Your task to perform on an android device: Add macbook air to the cart on target.com Image 0: 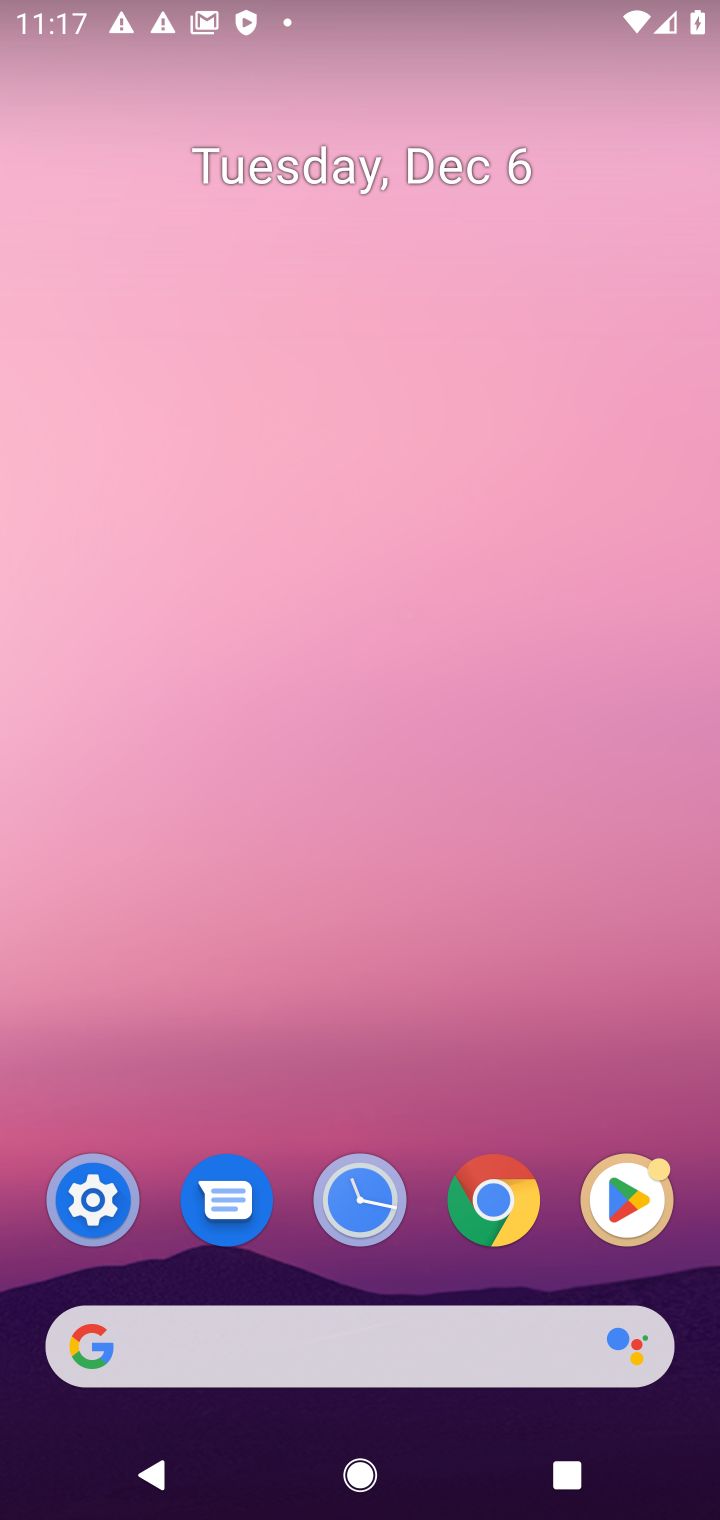
Step 0: click (291, 1377)
Your task to perform on an android device: Add macbook air to the cart on target.com Image 1: 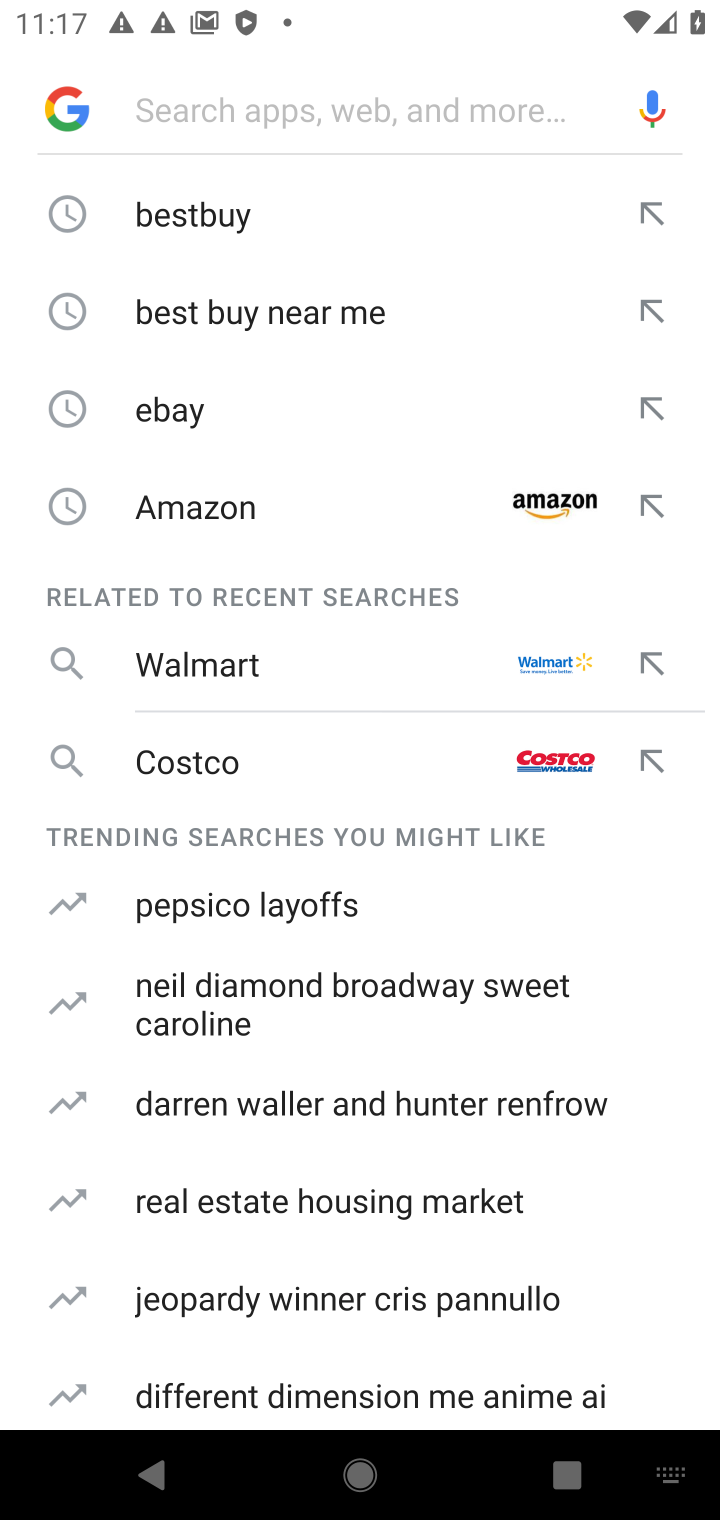
Step 1: type "target"
Your task to perform on an android device: Add macbook air to the cart on target.com Image 2: 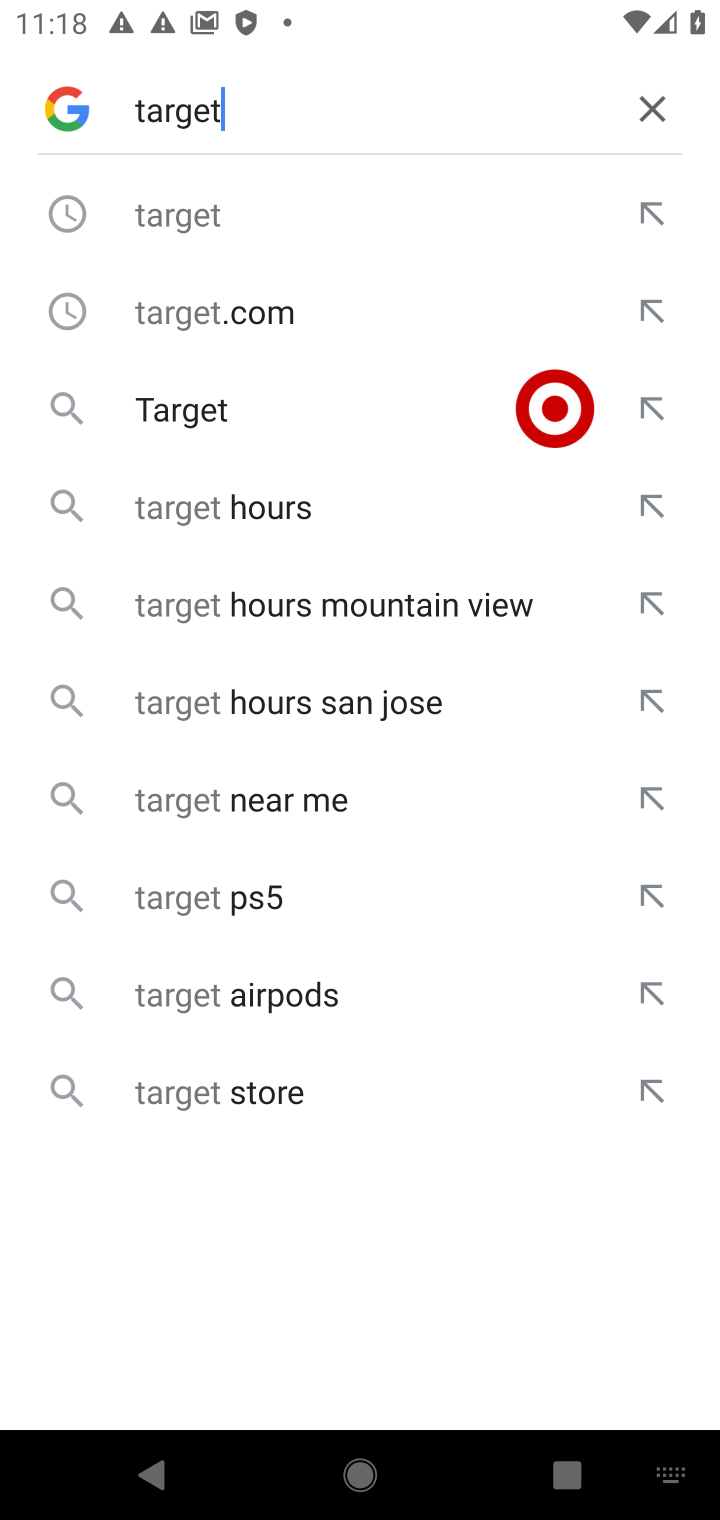
Step 2: click (209, 317)
Your task to perform on an android device: Add macbook air to the cart on target.com Image 3: 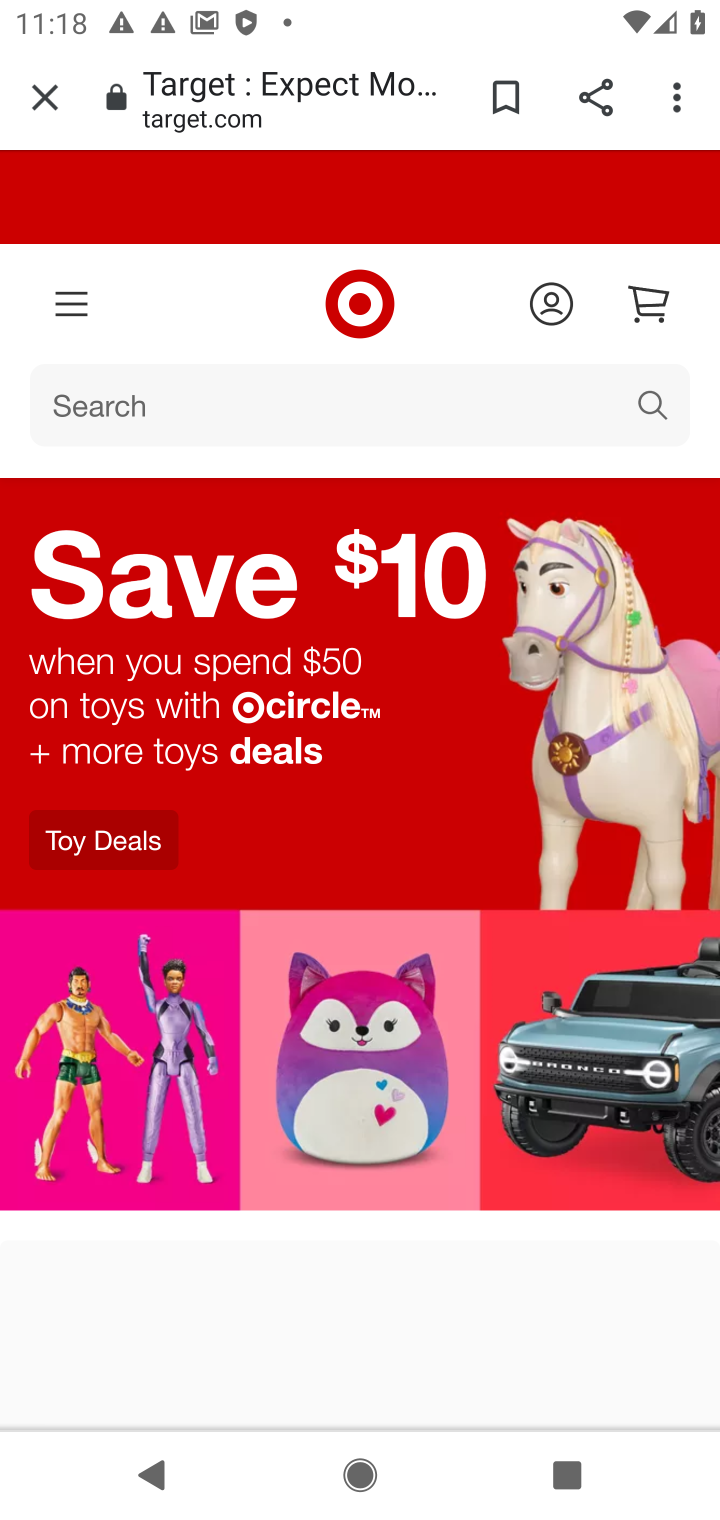
Step 3: click (153, 399)
Your task to perform on an android device: Add macbook air to the cart on target.com Image 4: 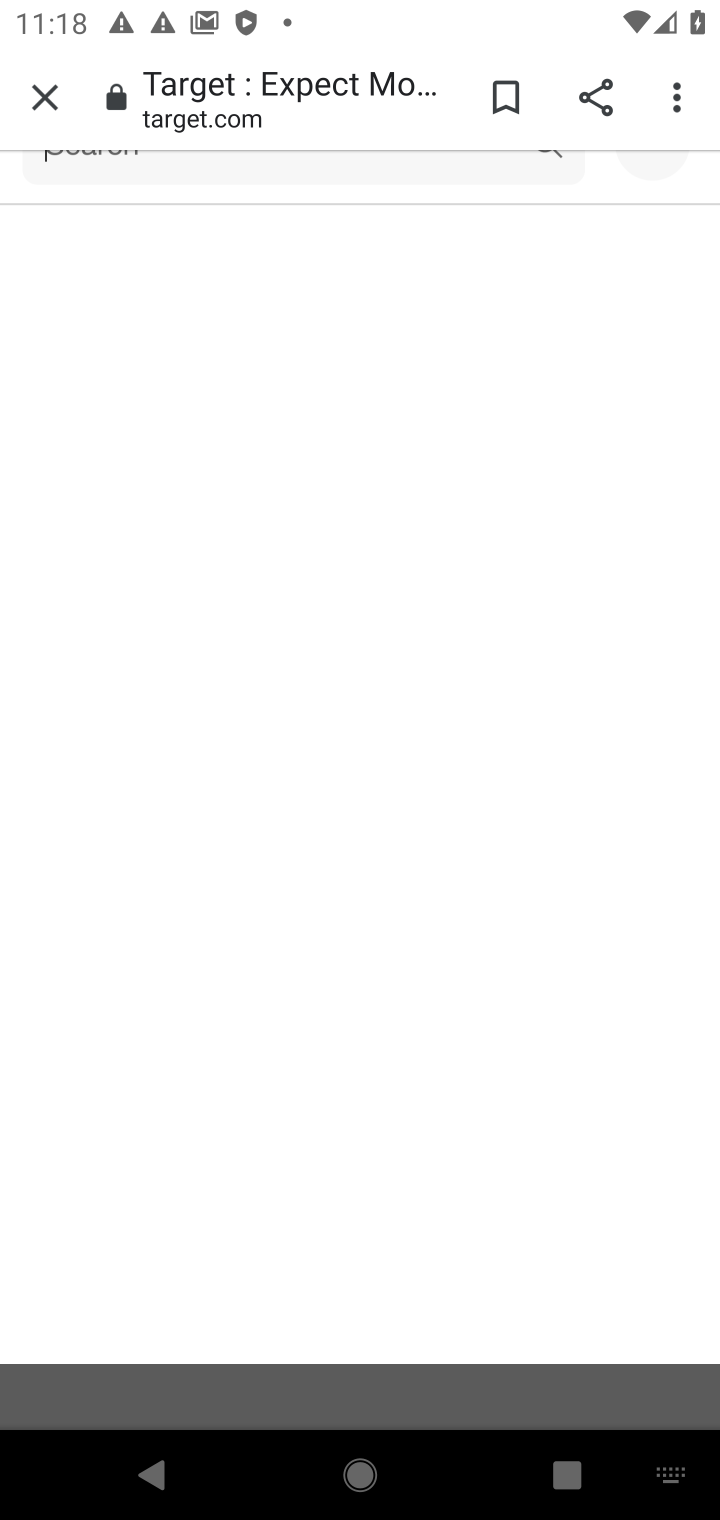
Step 4: type "macbook"
Your task to perform on an android device: Add macbook air to the cart on target.com Image 5: 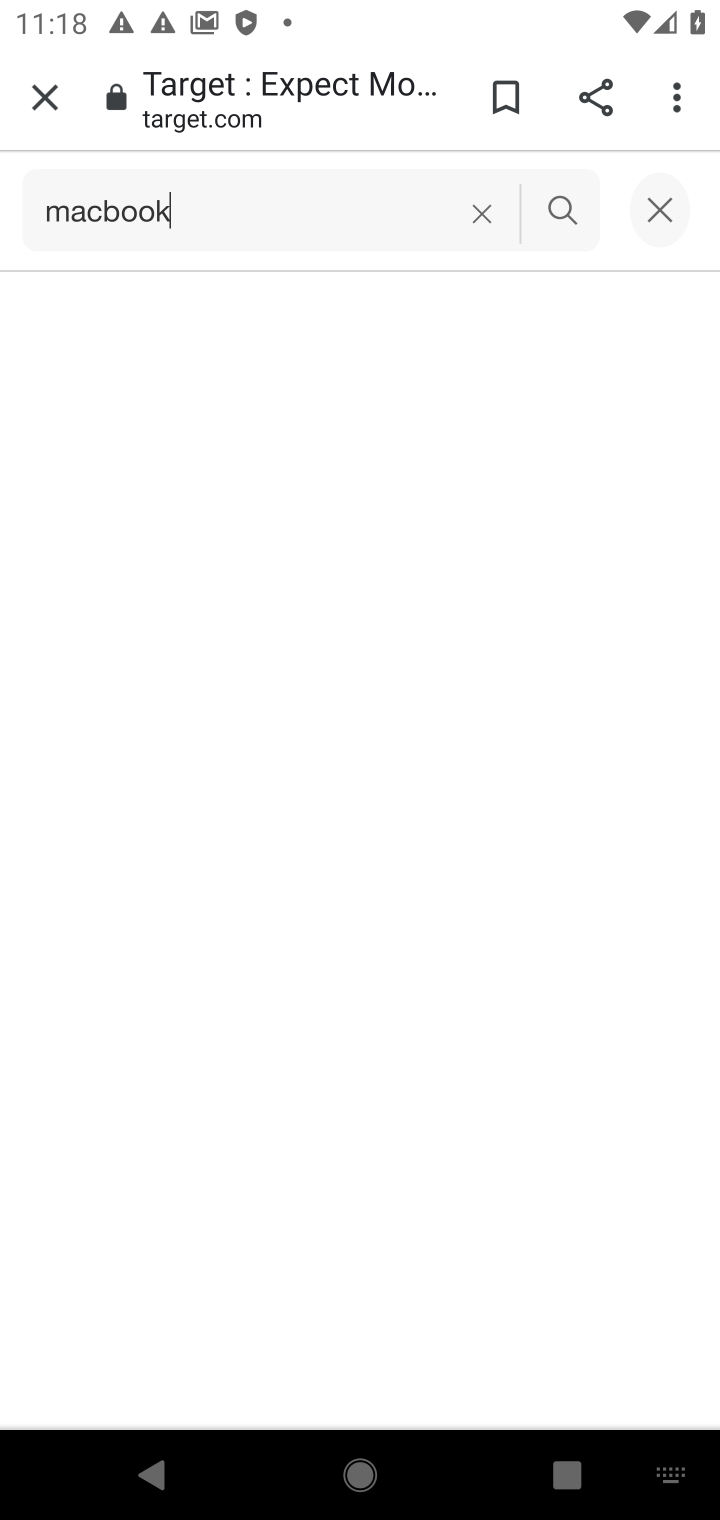
Step 5: click (550, 218)
Your task to perform on an android device: Add macbook air to the cart on target.com Image 6: 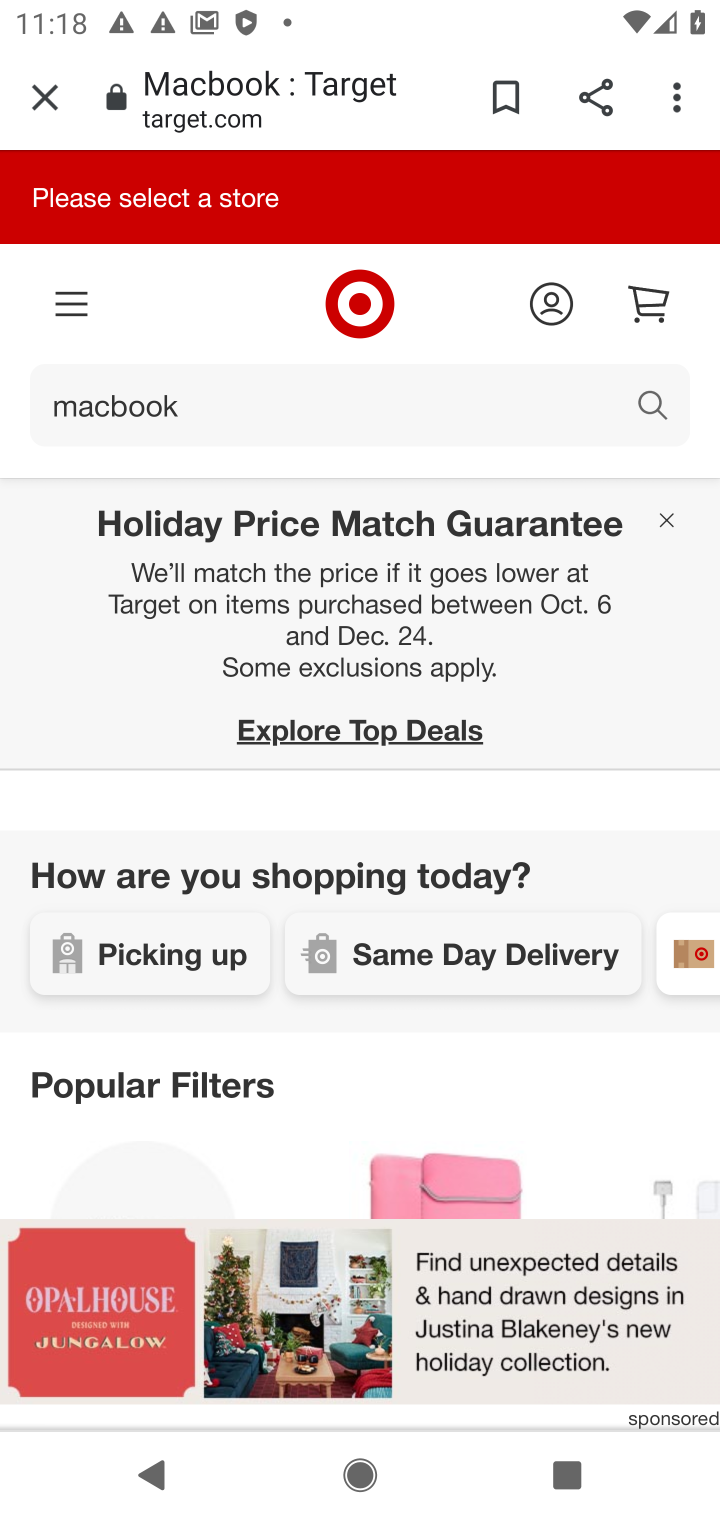
Step 6: task complete